Your task to perform on an android device: Empty the shopping cart on ebay. Add "logitech g502" to the cart on ebay, then select checkout. Image 0: 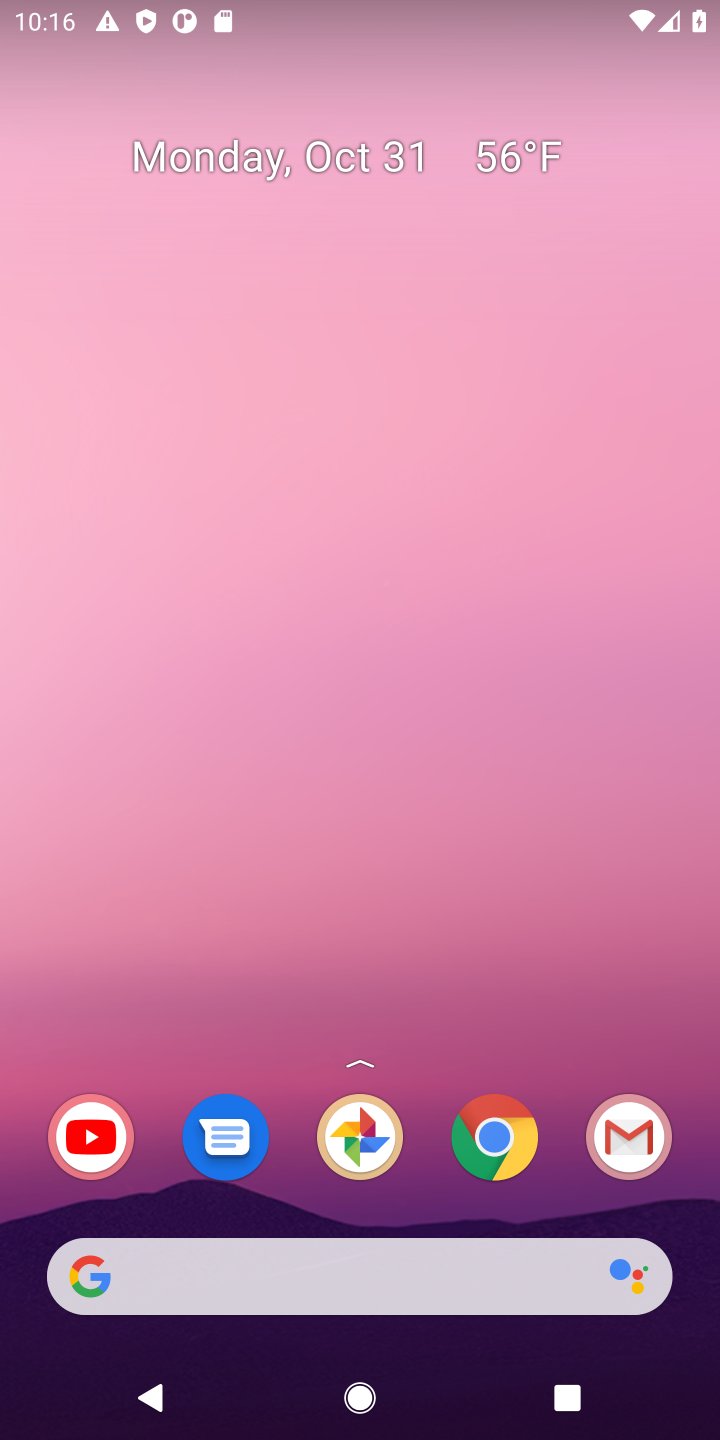
Step 0: click (495, 1136)
Your task to perform on an android device: Empty the shopping cart on ebay. Add "logitech g502" to the cart on ebay, then select checkout. Image 1: 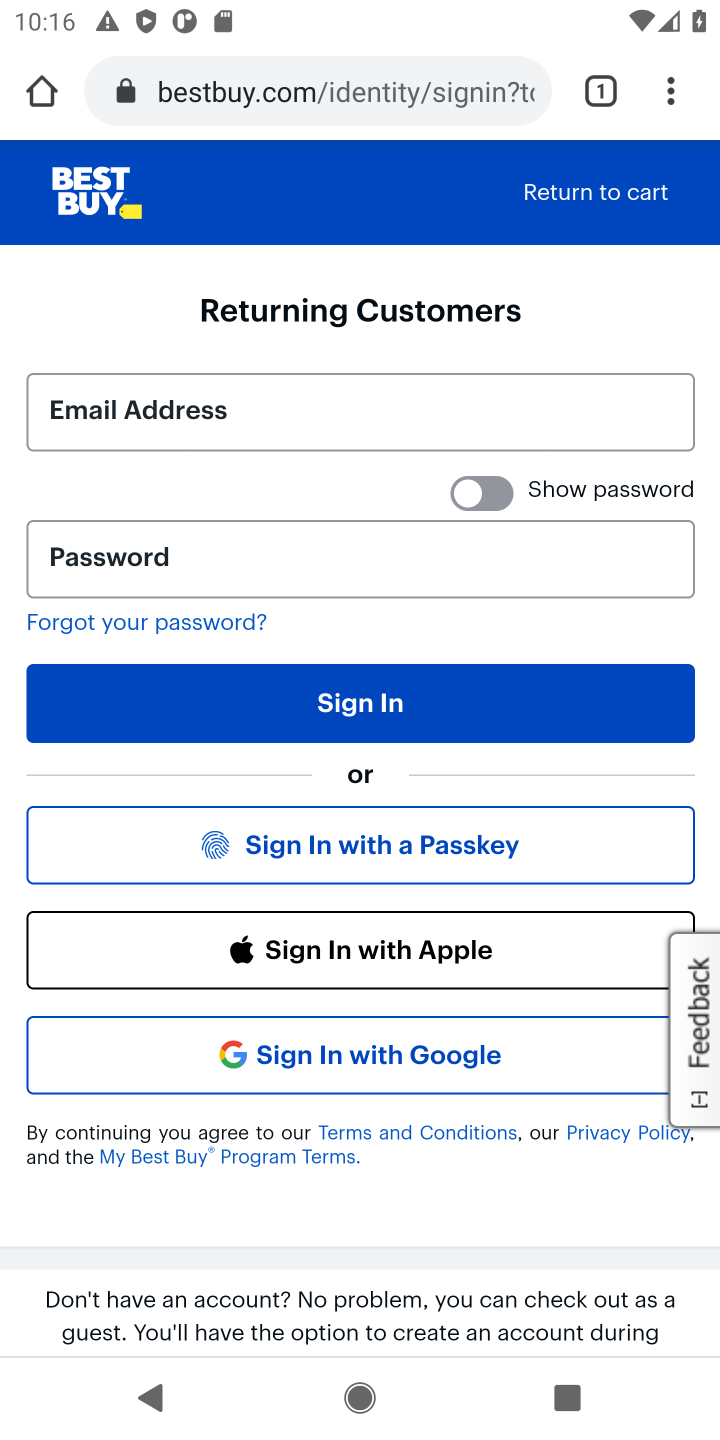
Step 1: click (406, 89)
Your task to perform on an android device: Empty the shopping cart on ebay. Add "logitech g502" to the cart on ebay, then select checkout. Image 2: 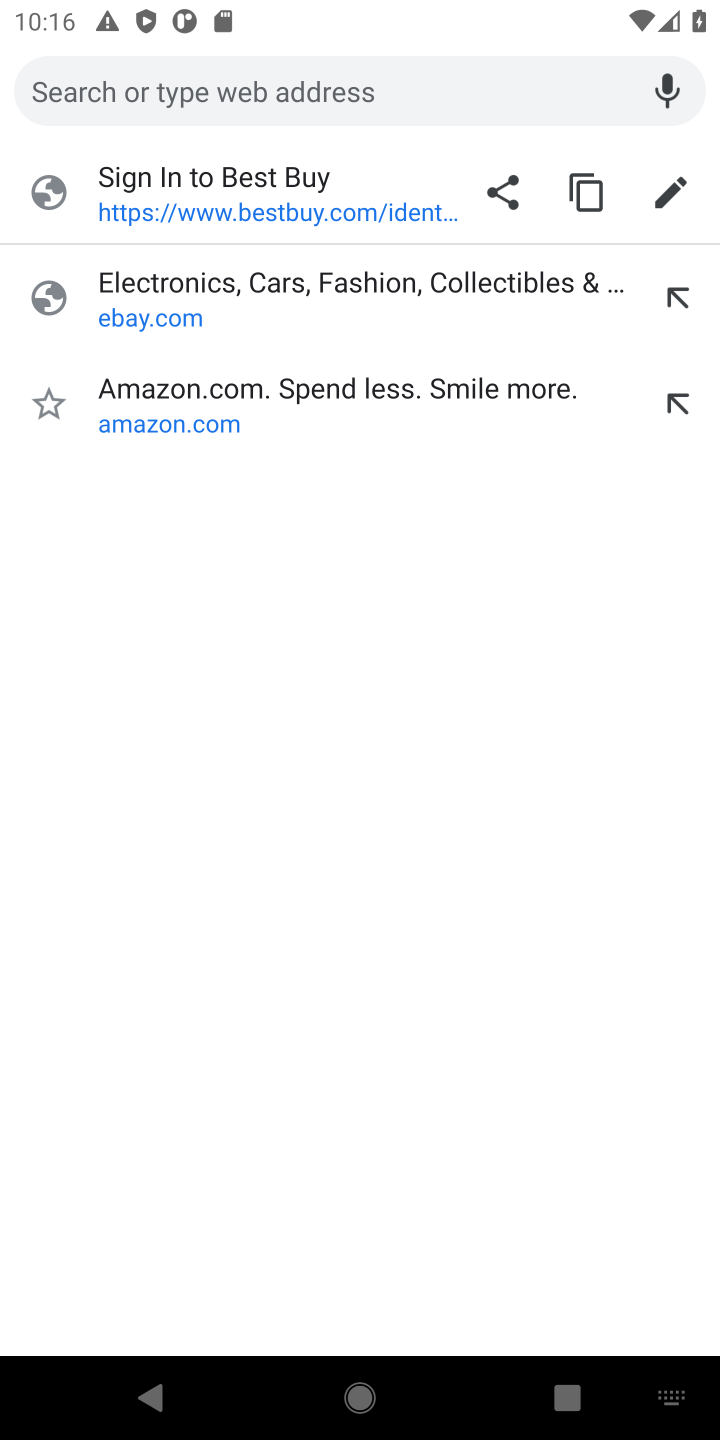
Step 2: type "ebay"
Your task to perform on an android device: Empty the shopping cart on ebay. Add "logitech g502" to the cart on ebay, then select checkout. Image 3: 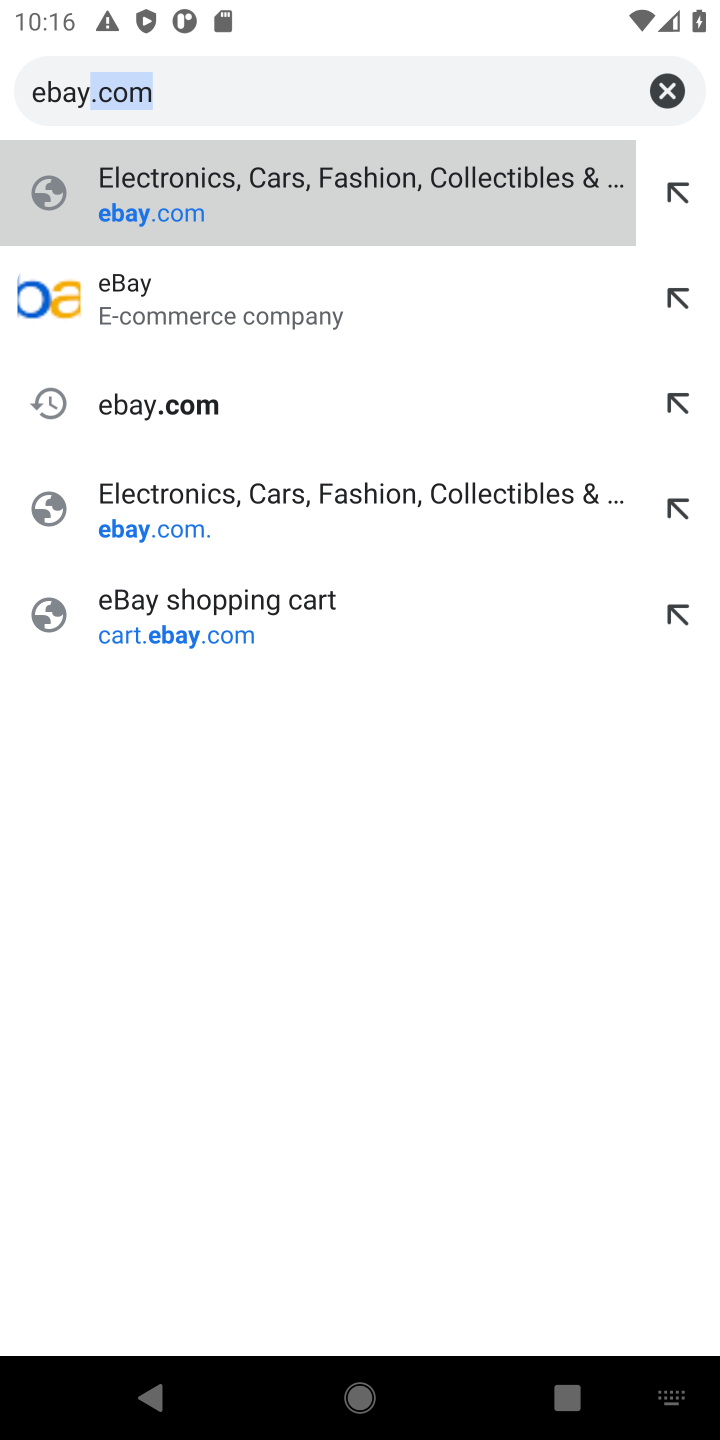
Step 3: click (117, 278)
Your task to perform on an android device: Empty the shopping cart on ebay. Add "logitech g502" to the cart on ebay, then select checkout. Image 4: 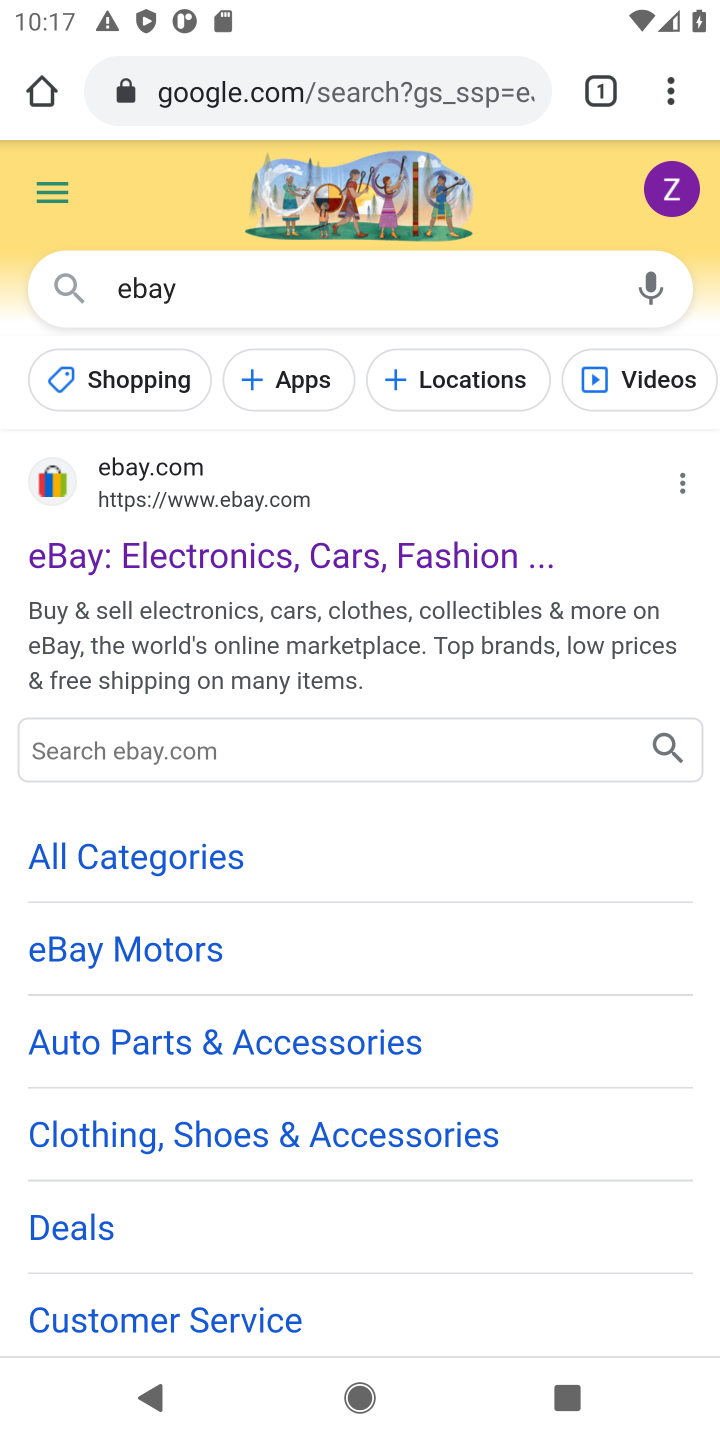
Step 4: click (186, 552)
Your task to perform on an android device: Empty the shopping cart on ebay. Add "logitech g502" to the cart on ebay, then select checkout. Image 5: 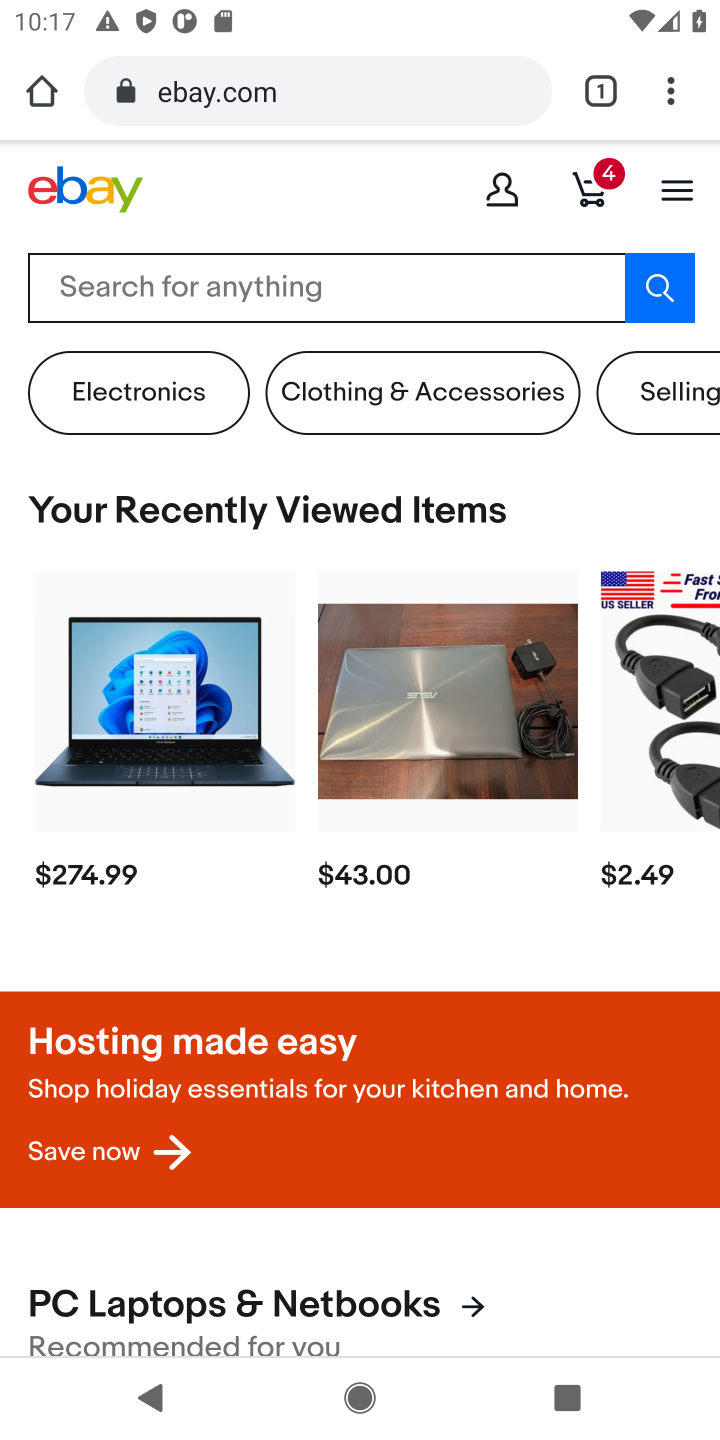
Step 5: click (592, 191)
Your task to perform on an android device: Empty the shopping cart on ebay. Add "logitech g502" to the cart on ebay, then select checkout. Image 6: 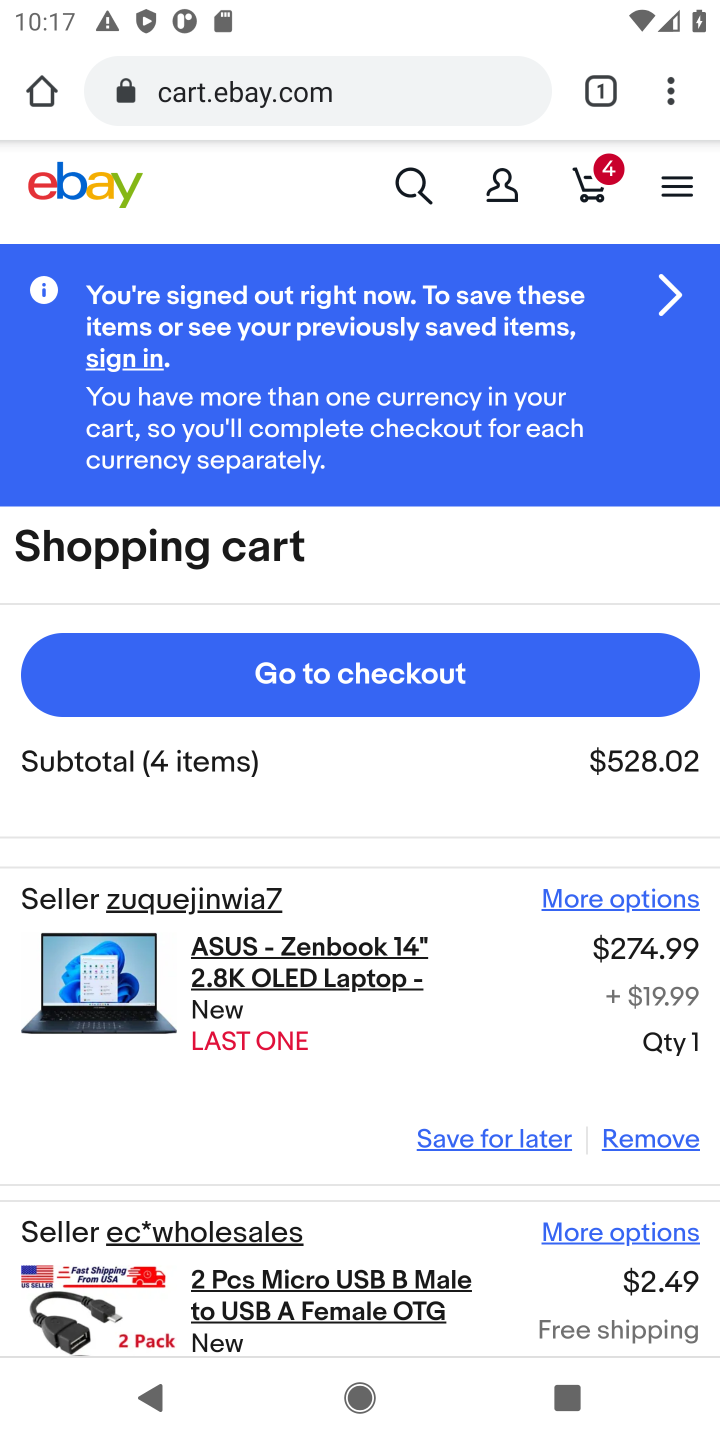
Step 6: click (641, 1140)
Your task to perform on an android device: Empty the shopping cart on ebay. Add "logitech g502" to the cart on ebay, then select checkout. Image 7: 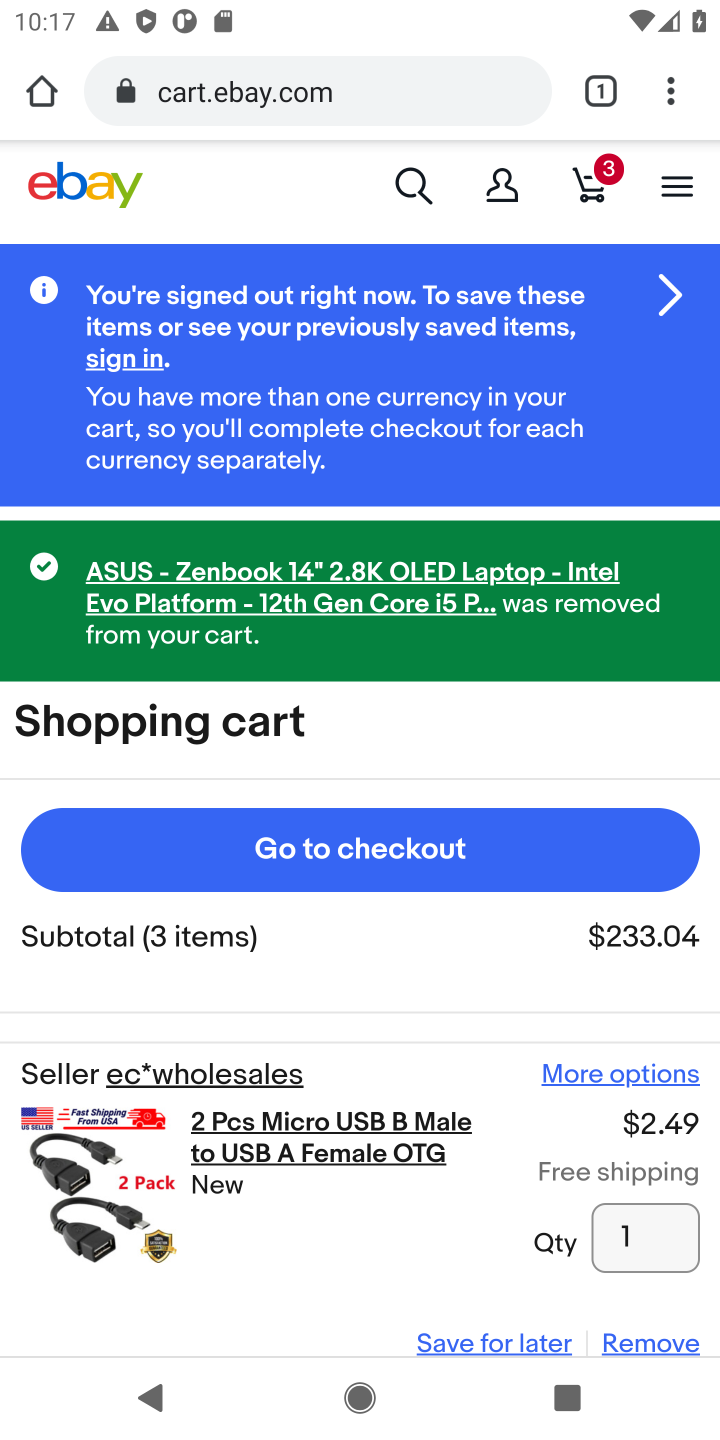
Step 7: drag from (477, 1233) to (534, 673)
Your task to perform on an android device: Empty the shopping cart on ebay. Add "logitech g502" to the cart on ebay, then select checkout. Image 8: 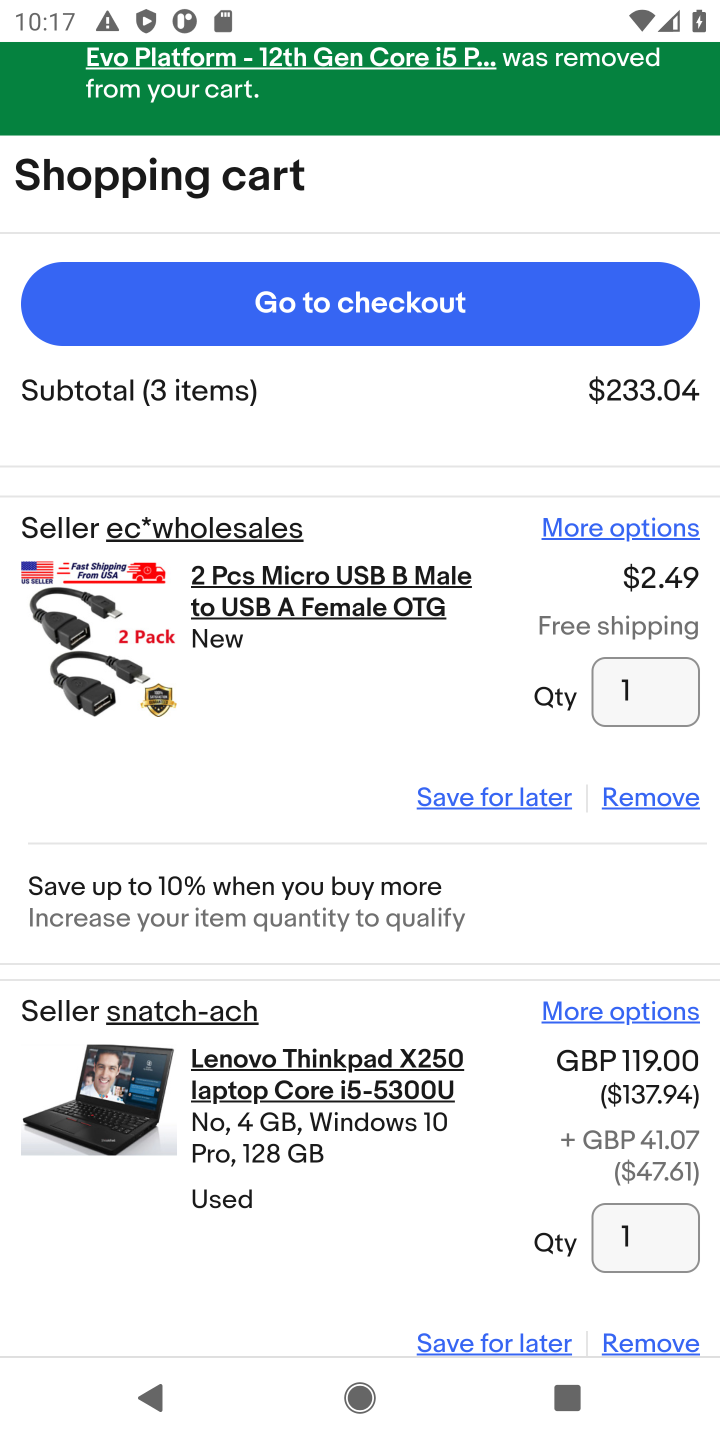
Step 8: click (642, 797)
Your task to perform on an android device: Empty the shopping cart on ebay. Add "logitech g502" to the cart on ebay, then select checkout. Image 9: 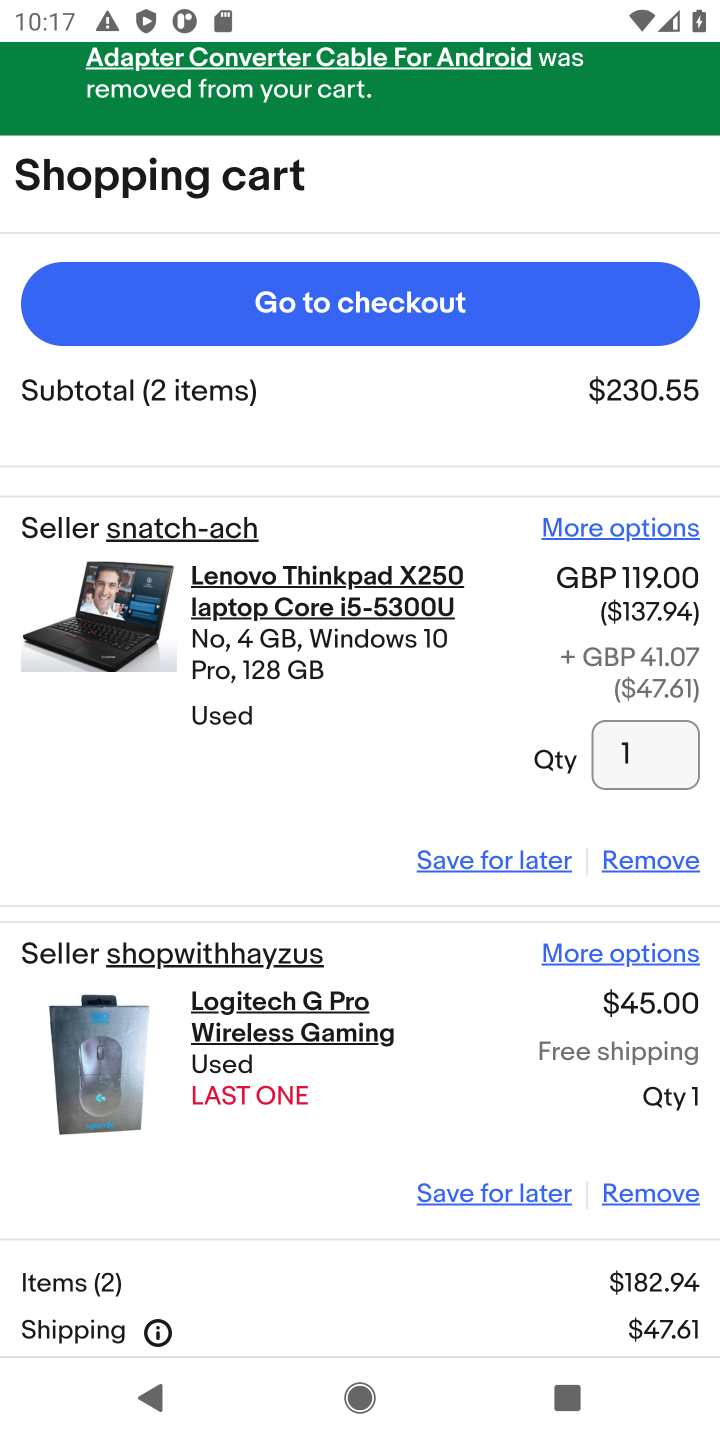
Step 9: click (642, 858)
Your task to perform on an android device: Empty the shopping cart on ebay. Add "logitech g502" to the cart on ebay, then select checkout. Image 10: 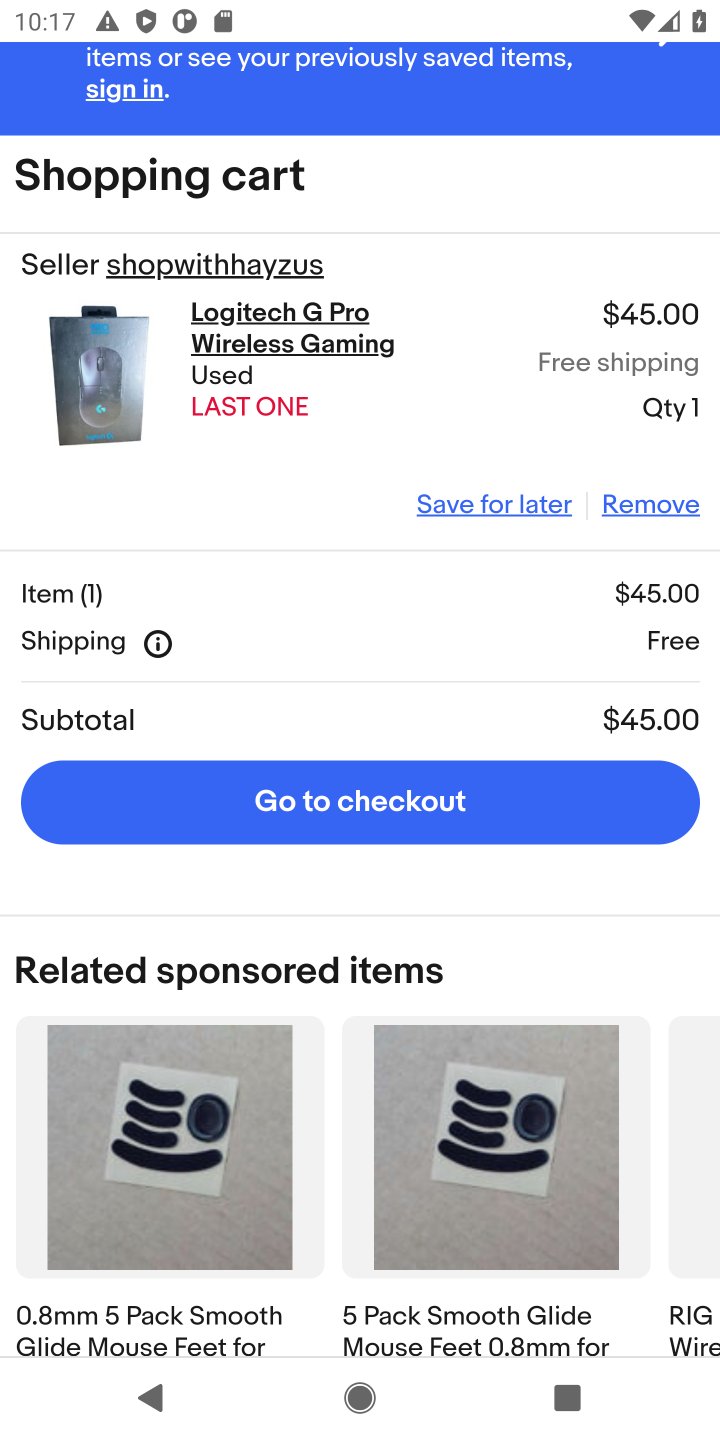
Step 10: click (659, 508)
Your task to perform on an android device: Empty the shopping cart on ebay. Add "logitech g502" to the cart on ebay, then select checkout. Image 11: 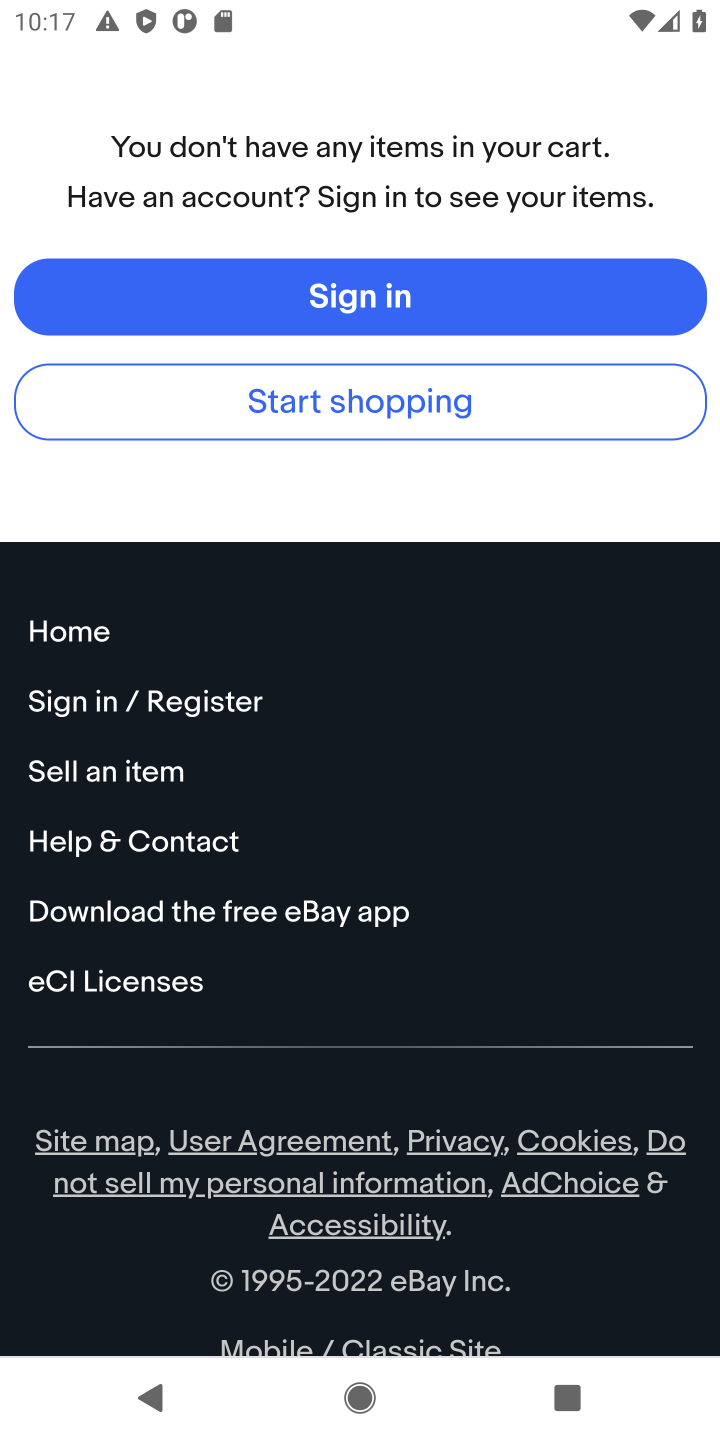
Step 11: drag from (431, 120) to (328, 916)
Your task to perform on an android device: Empty the shopping cart on ebay. Add "logitech g502" to the cart on ebay, then select checkout. Image 12: 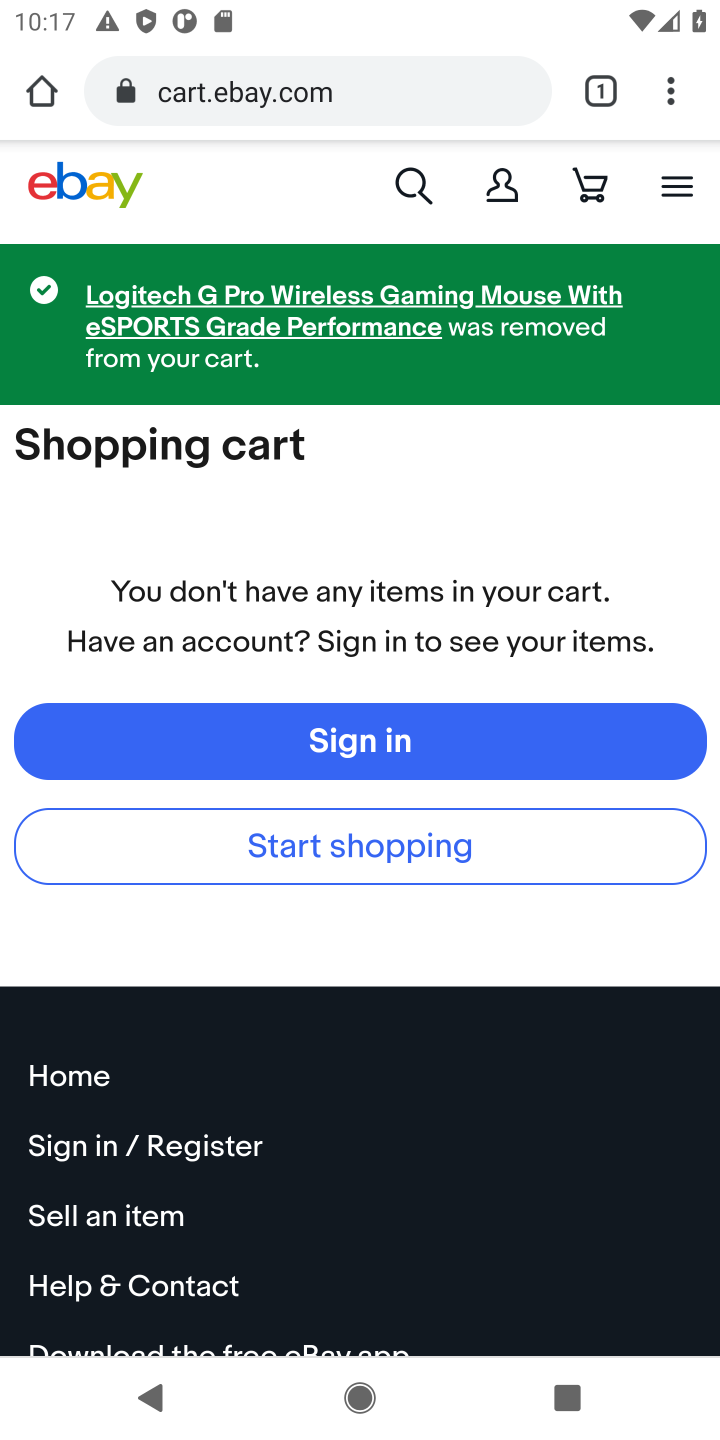
Step 12: click (405, 190)
Your task to perform on an android device: Empty the shopping cart on ebay. Add "logitech g502" to the cart on ebay, then select checkout. Image 13: 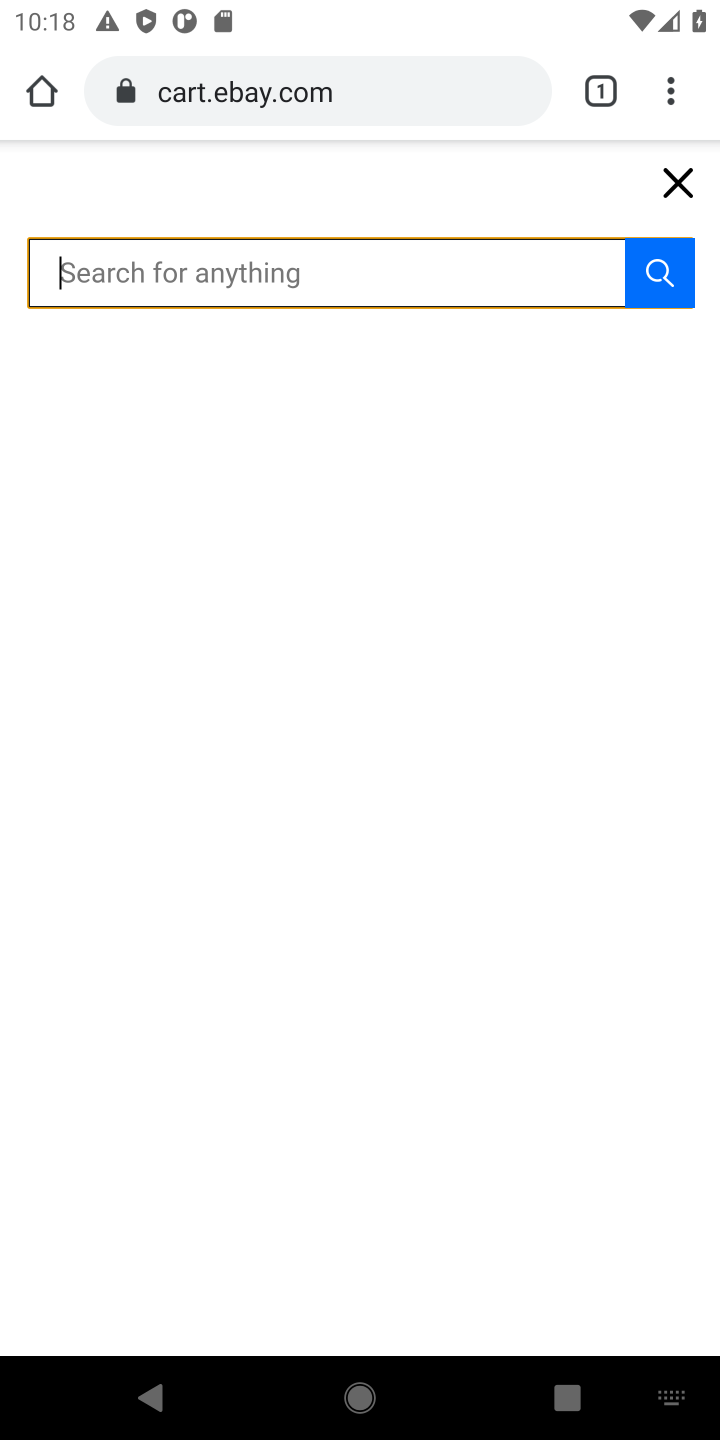
Step 13: type "logitech g502"
Your task to perform on an android device: Empty the shopping cart on ebay. Add "logitech g502" to the cart on ebay, then select checkout. Image 14: 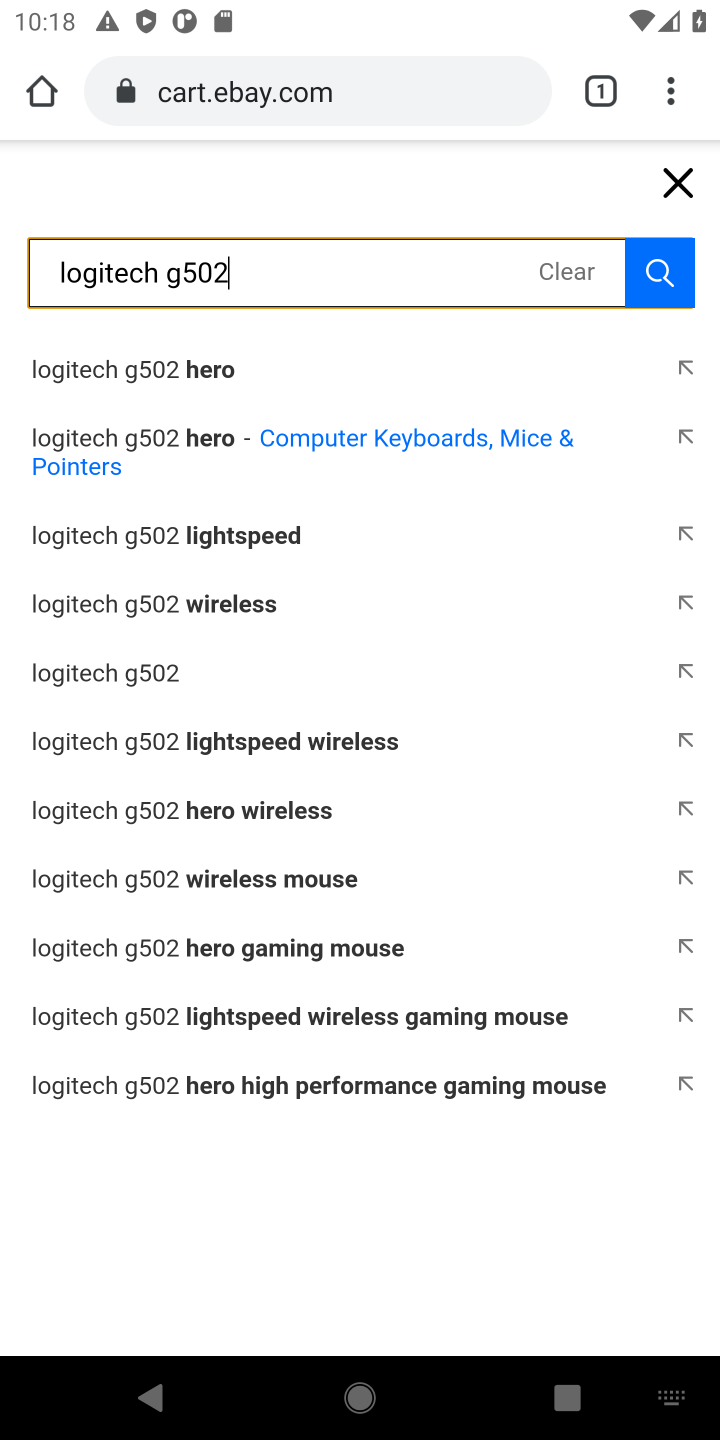
Step 14: click (652, 271)
Your task to perform on an android device: Empty the shopping cart on ebay. Add "logitech g502" to the cart on ebay, then select checkout. Image 15: 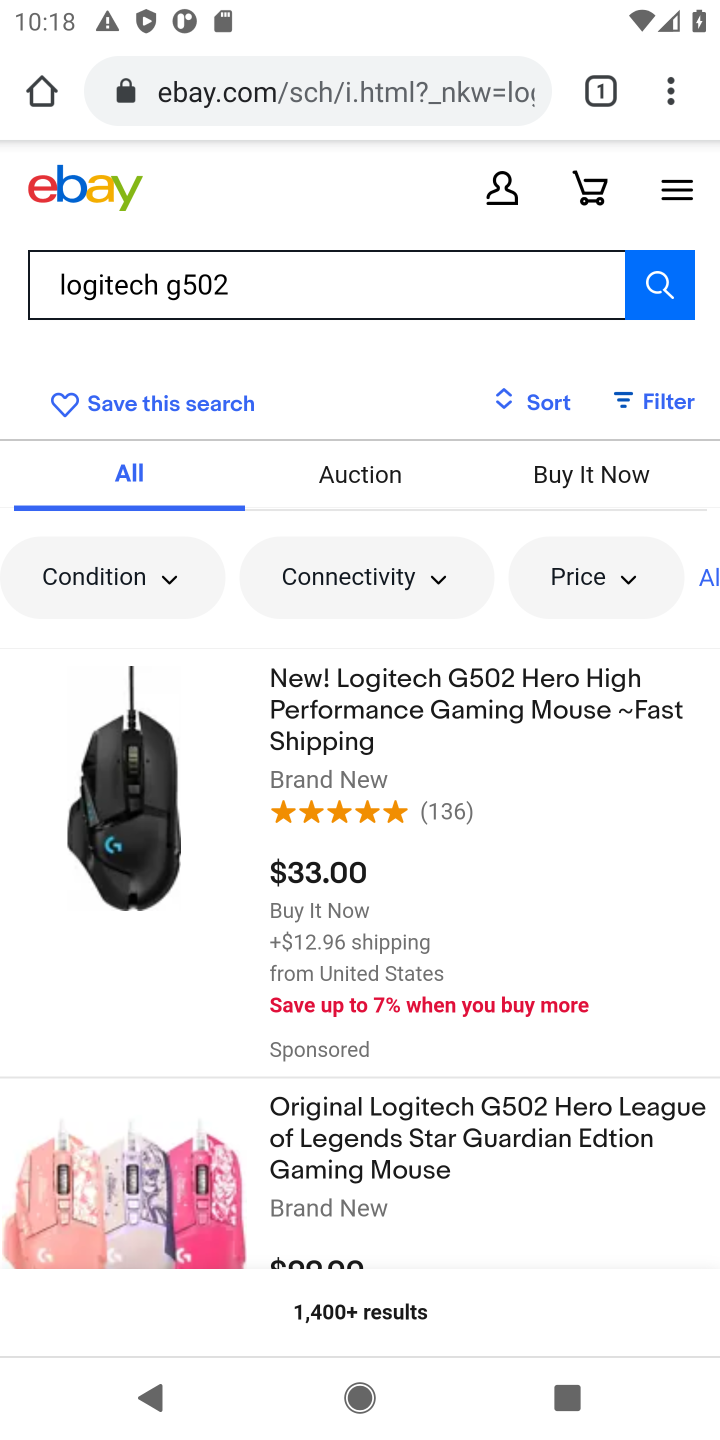
Step 15: click (345, 699)
Your task to perform on an android device: Empty the shopping cart on ebay. Add "logitech g502" to the cart on ebay, then select checkout. Image 16: 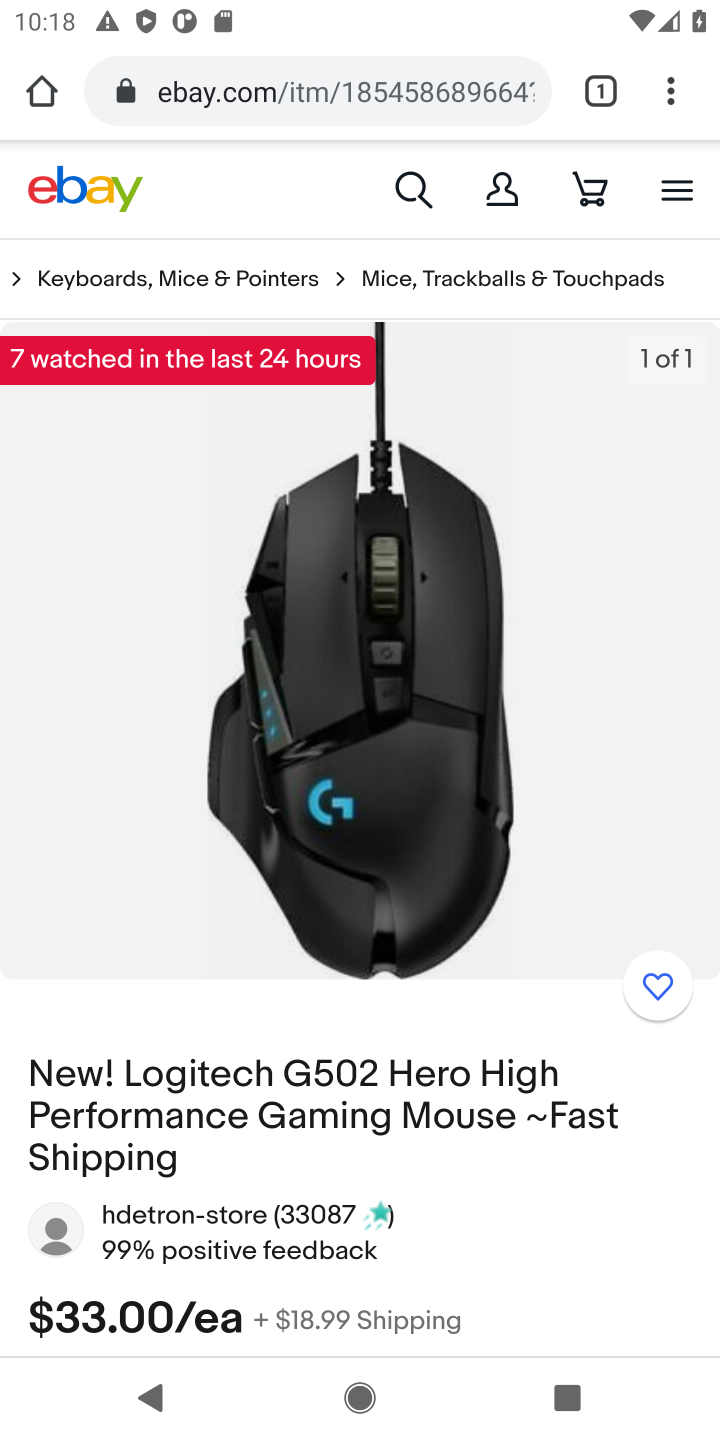
Step 16: drag from (458, 1201) to (447, 361)
Your task to perform on an android device: Empty the shopping cart on ebay. Add "logitech g502" to the cart on ebay, then select checkout. Image 17: 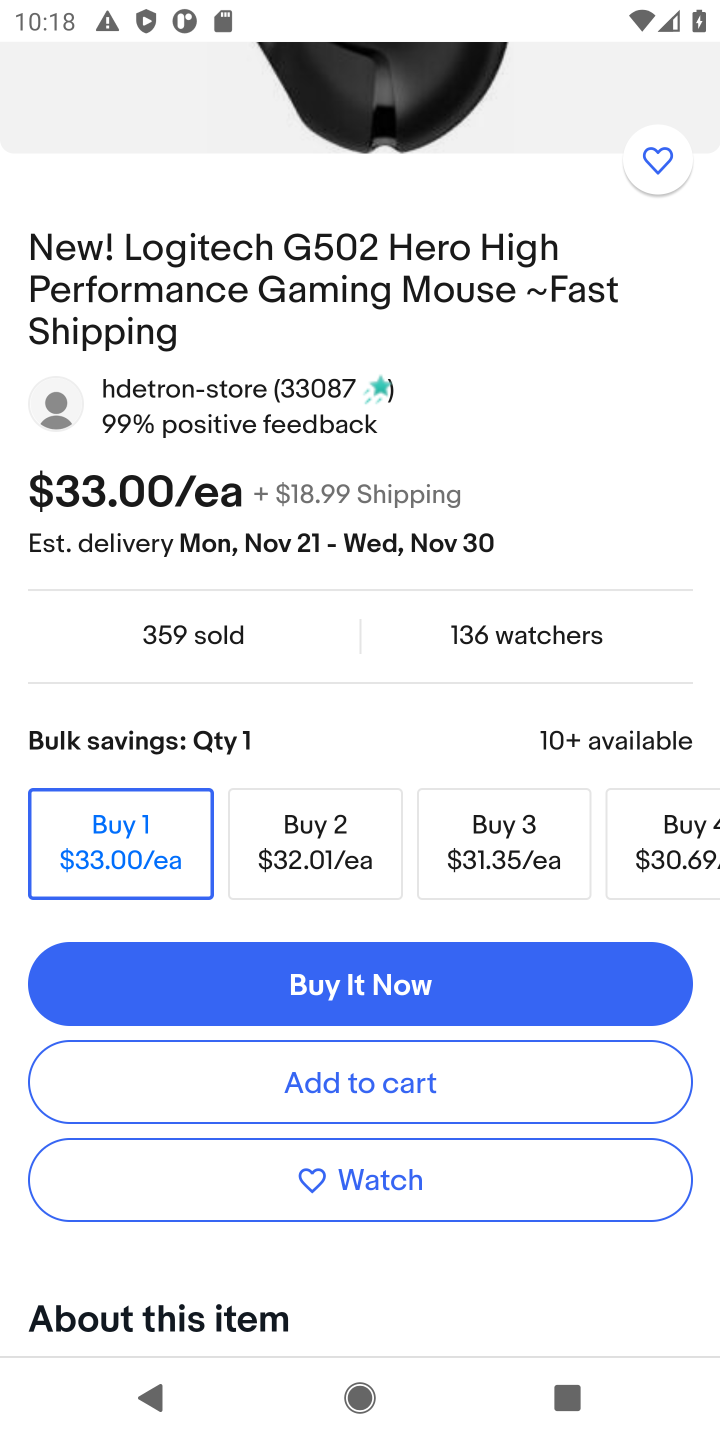
Step 17: click (386, 1088)
Your task to perform on an android device: Empty the shopping cart on ebay. Add "logitech g502" to the cart on ebay, then select checkout. Image 18: 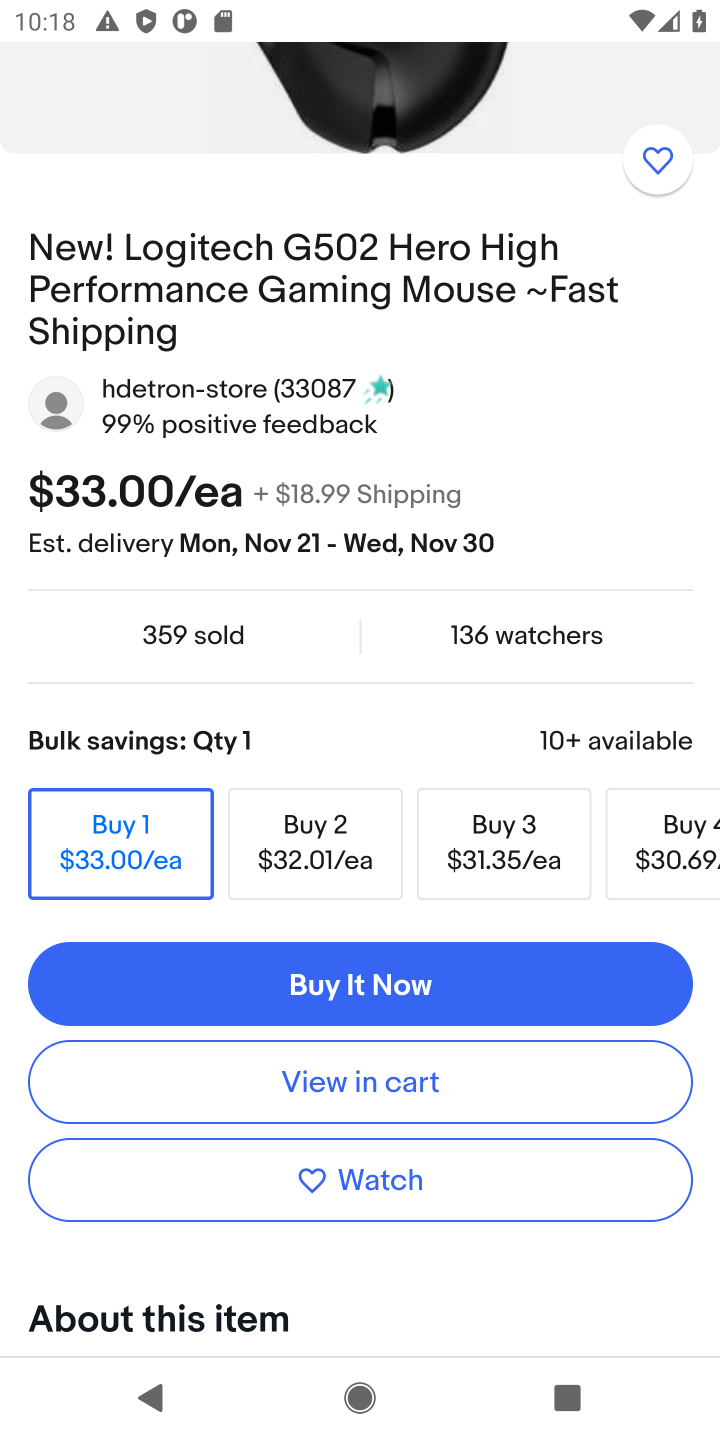
Step 18: drag from (453, 396) to (392, 1262)
Your task to perform on an android device: Empty the shopping cart on ebay. Add "logitech g502" to the cart on ebay, then select checkout. Image 19: 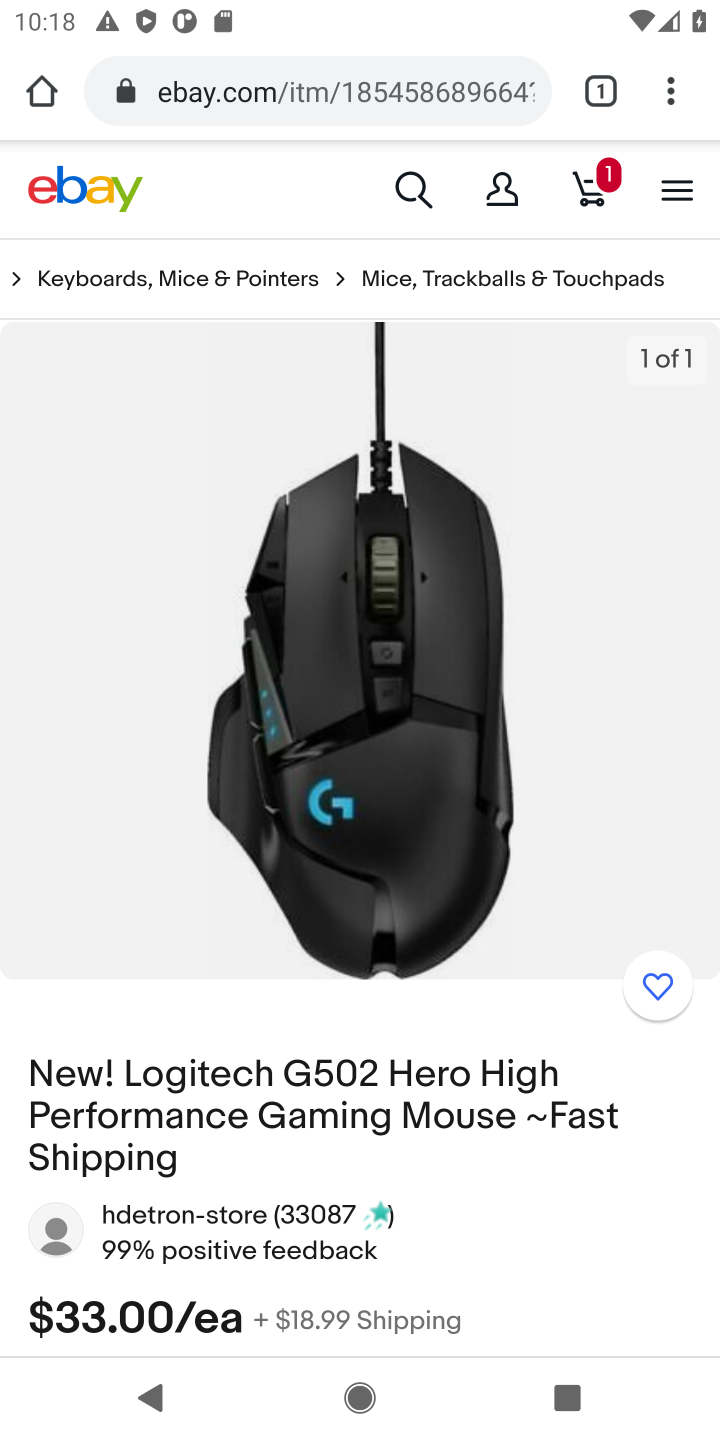
Step 19: click (605, 180)
Your task to perform on an android device: Empty the shopping cart on ebay. Add "logitech g502" to the cart on ebay, then select checkout. Image 20: 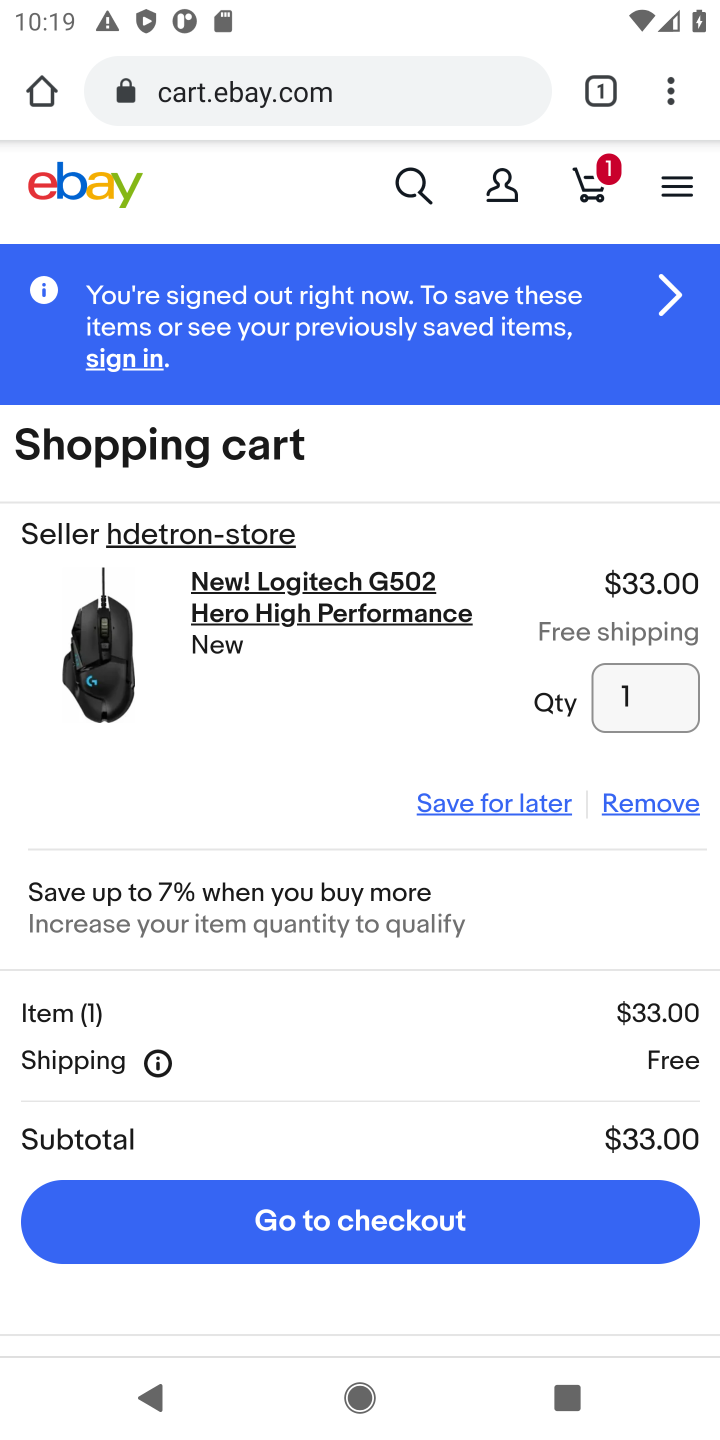
Step 20: click (382, 1222)
Your task to perform on an android device: Empty the shopping cart on ebay. Add "logitech g502" to the cart on ebay, then select checkout. Image 21: 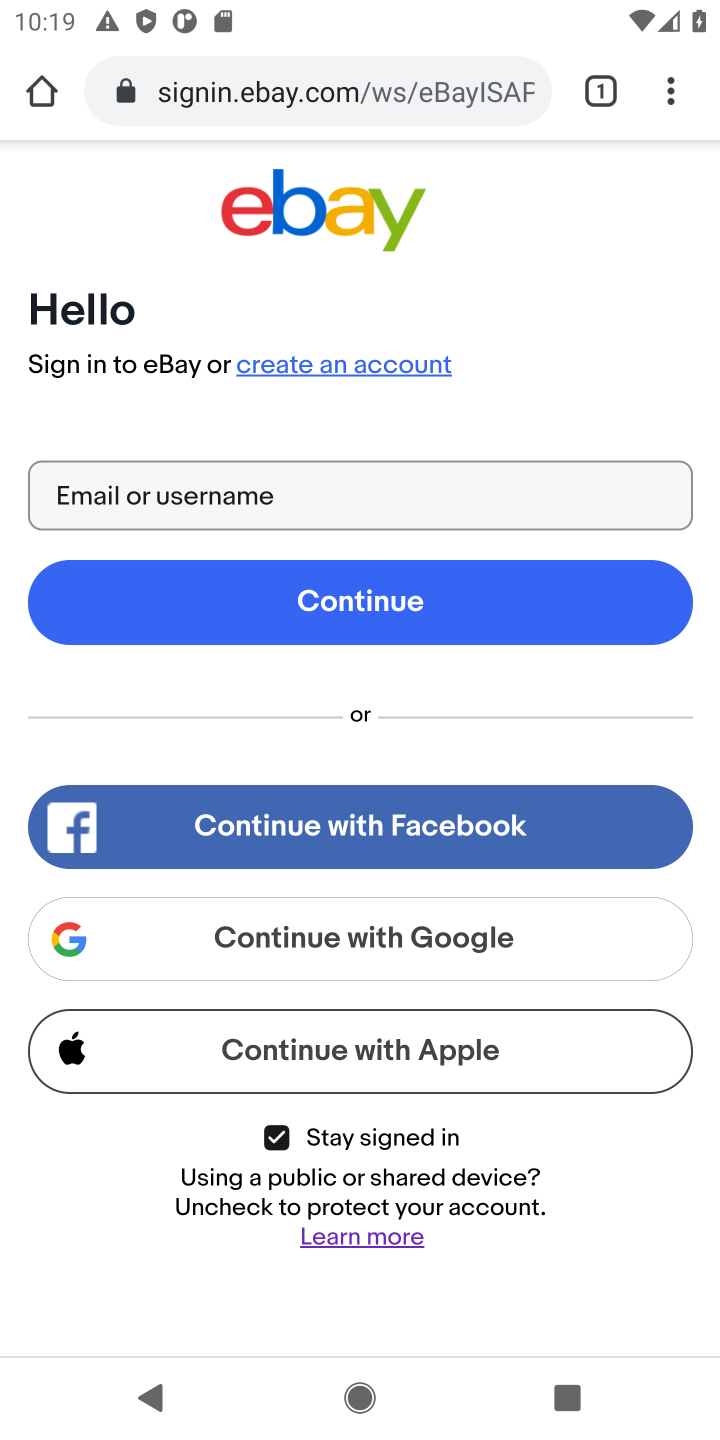
Step 21: task complete